Your task to perform on an android device: delete the emails in spam in the gmail app Image 0: 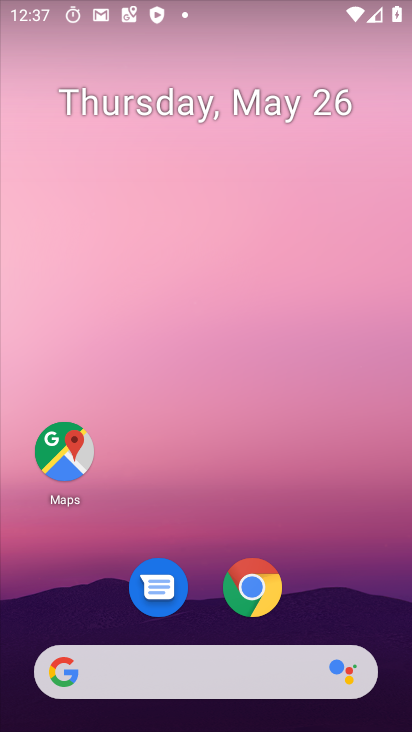
Step 0: drag from (317, 634) to (344, 98)
Your task to perform on an android device: delete the emails in spam in the gmail app Image 1: 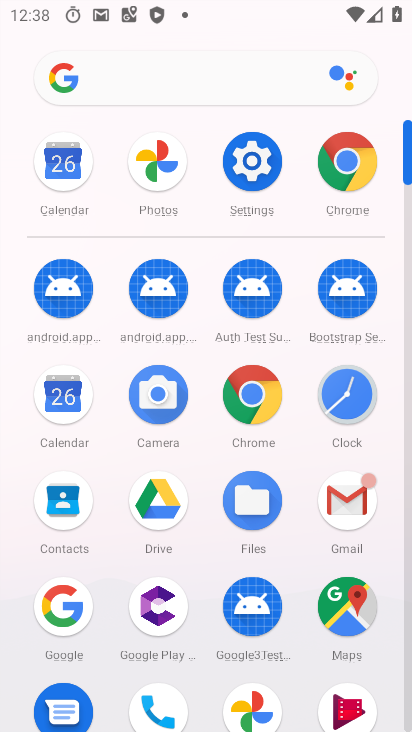
Step 1: click (338, 493)
Your task to perform on an android device: delete the emails in spam in the gmail app Image 2: 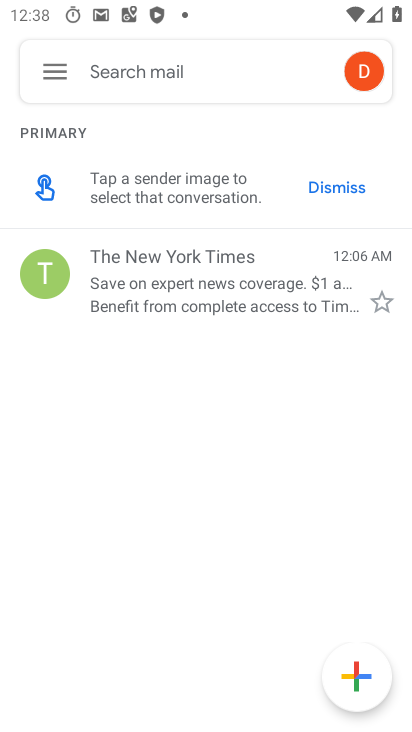
Step 2: click (41, 66)
Your task to perform on an android device: delete the emails in spam in the gmail app Image 3: 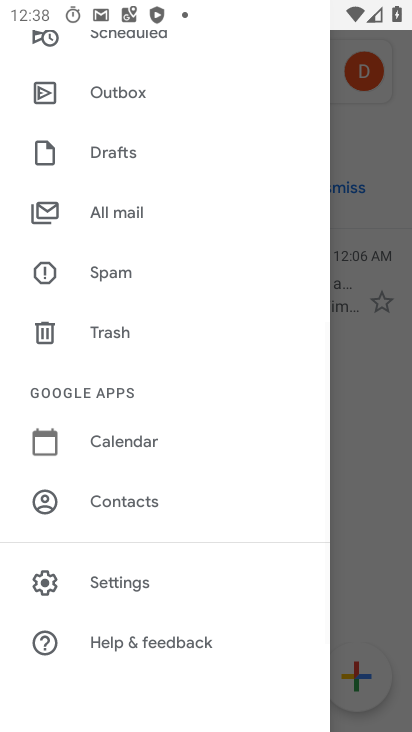
Step 3: click (129, 597)
Your task to perform on an android device: delete the emails in spam in the gmail app Image 4: 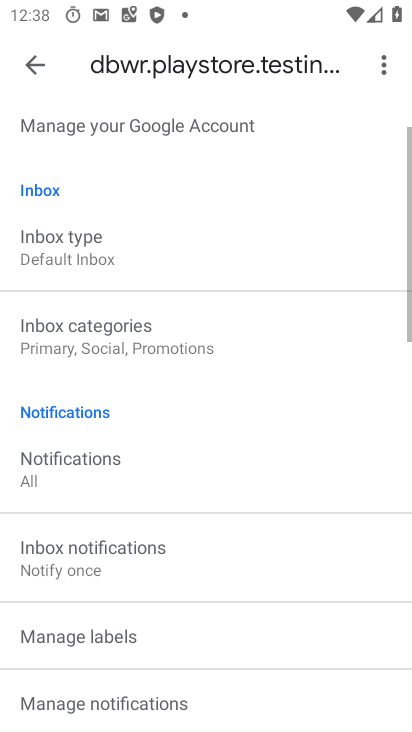
Step 4: click (35, 76)
Your task to perform on an android device: delete the emails in spam in the gmail app Image 5: 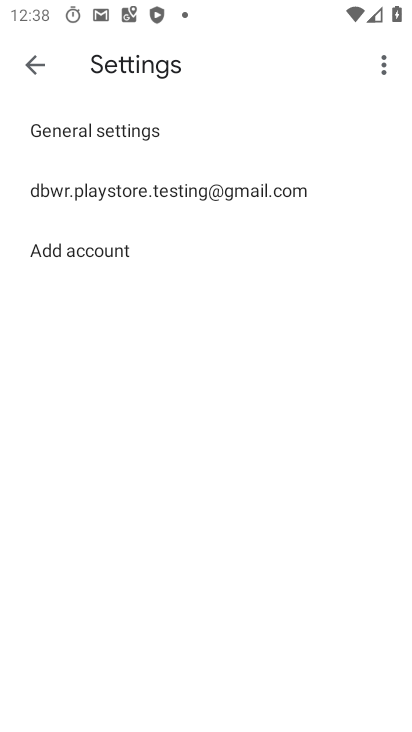
Step 5: click (24, 81)
Your task to perform on an android device: delete the emails in spam in the gmail app Image 6: 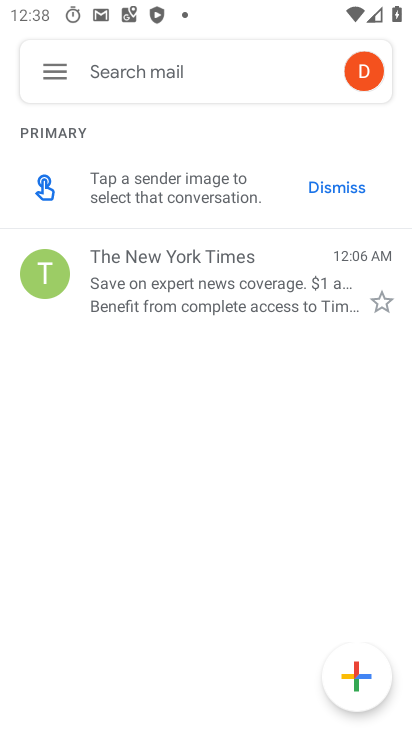
Step 6: click (42, 58)
Your task to perform on an android device: delete the emails in spam in the gmail app Image 7: 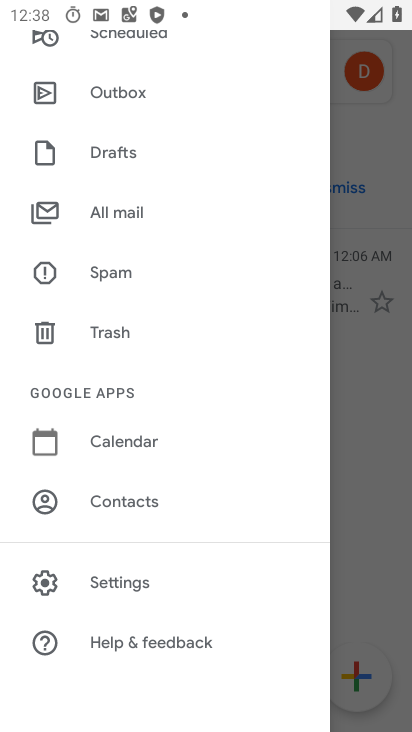
Step 7: click (142, 270)
Your task to perform on an android device: delete the emails in spam in the gmail app Image 8: 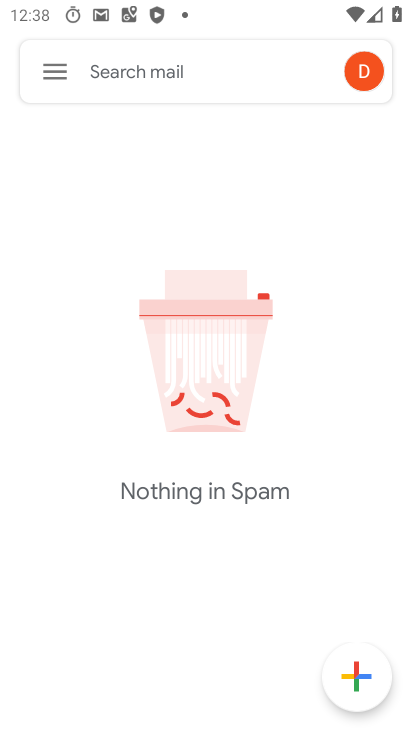
Step 8: task complete